Your task to perform on an android device: Toggle the flashlight Image 0: 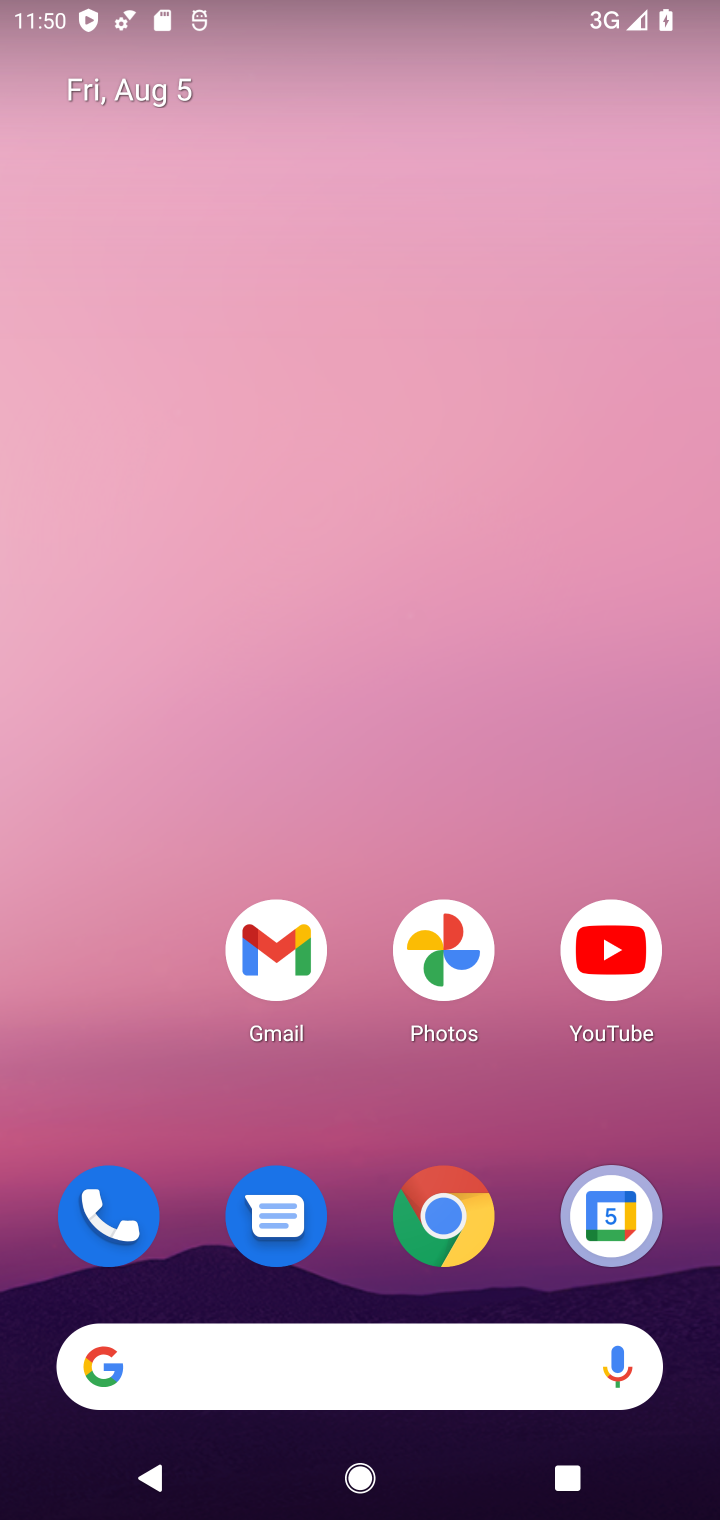
Step 0: drag from (425, 1344) to (464, 643)
Your task to perform on an android device: Toggle the flashlight Image 1: 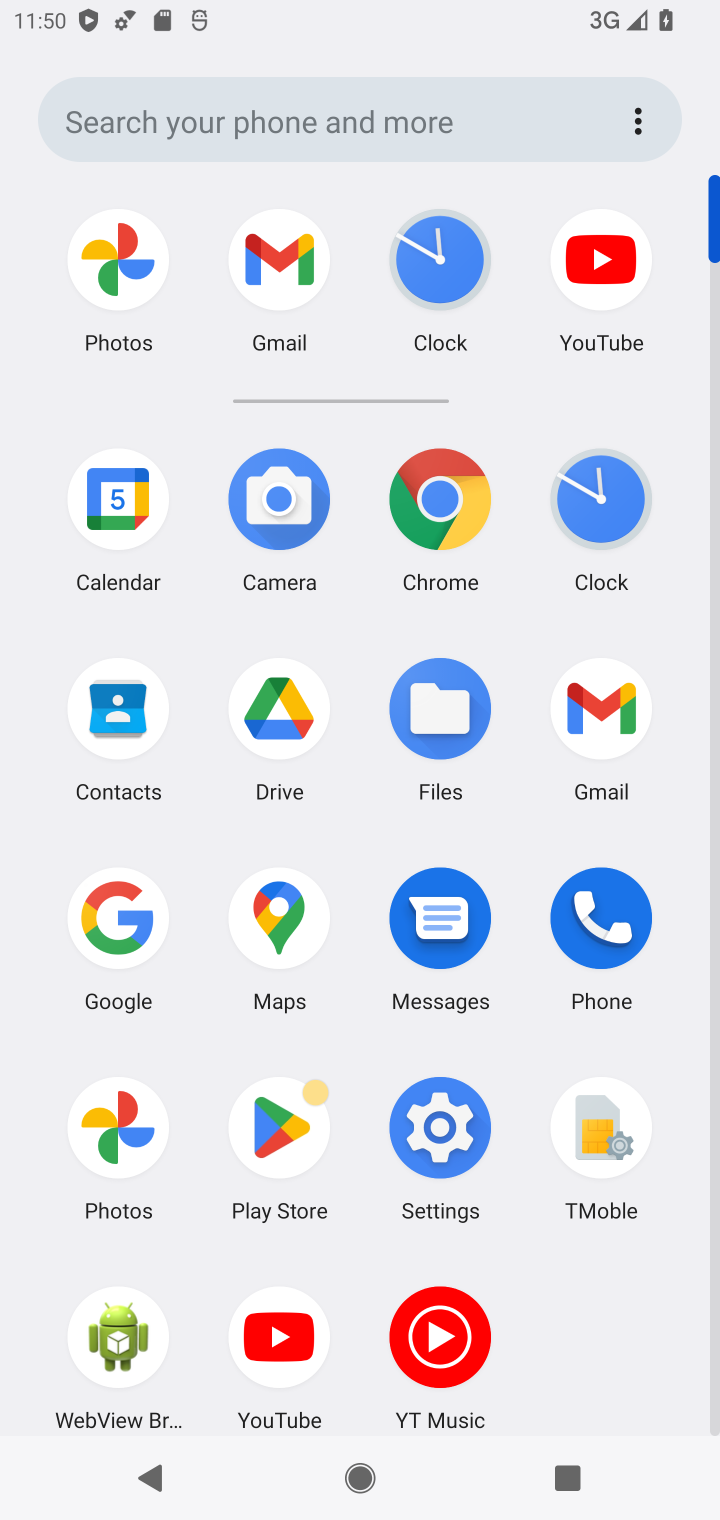
Step 1: drag from (436, 1) to (362, 1055)
Your task to perform on an android device: Toggle the flashlight Image 2: 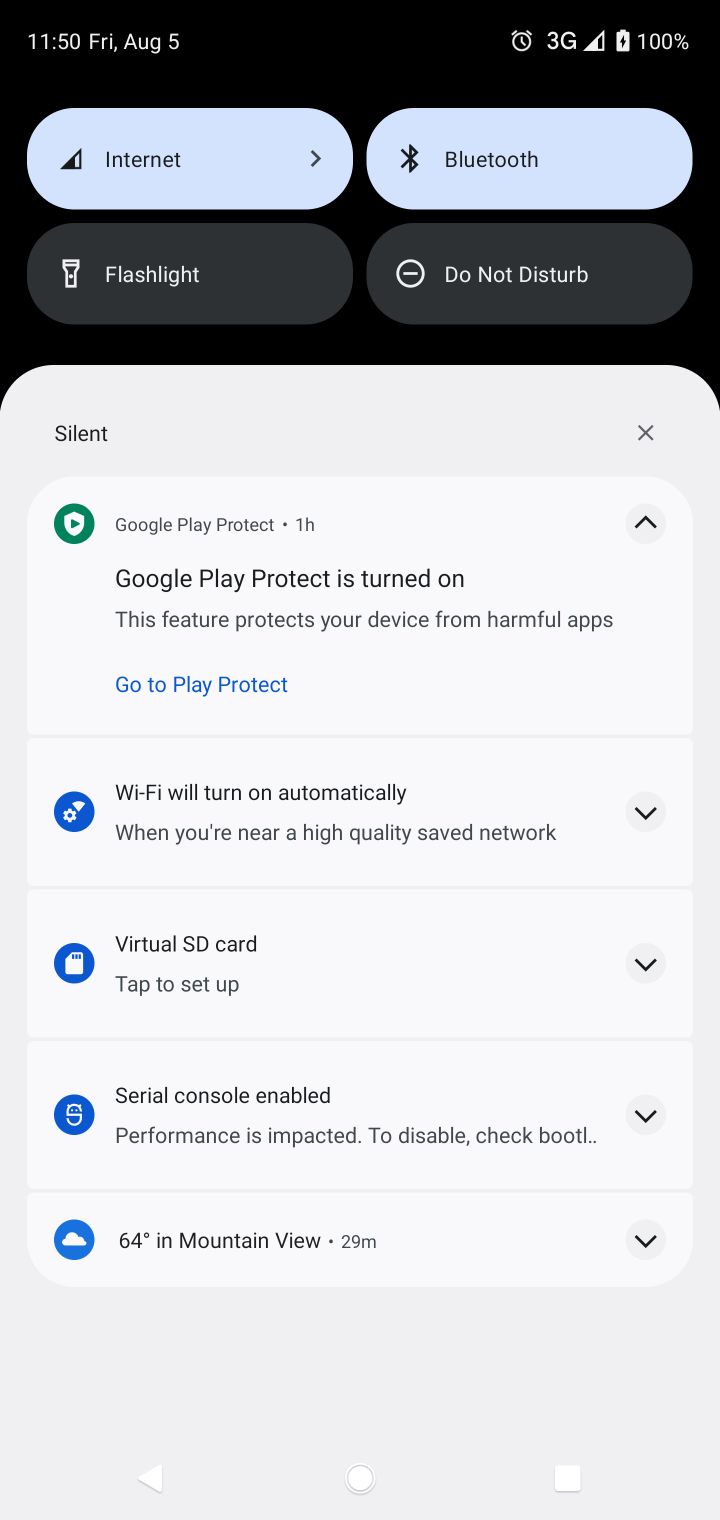
Step 2: click (194, 255)
Your task to perform on an android device: Toggle the flashlight Image 3: 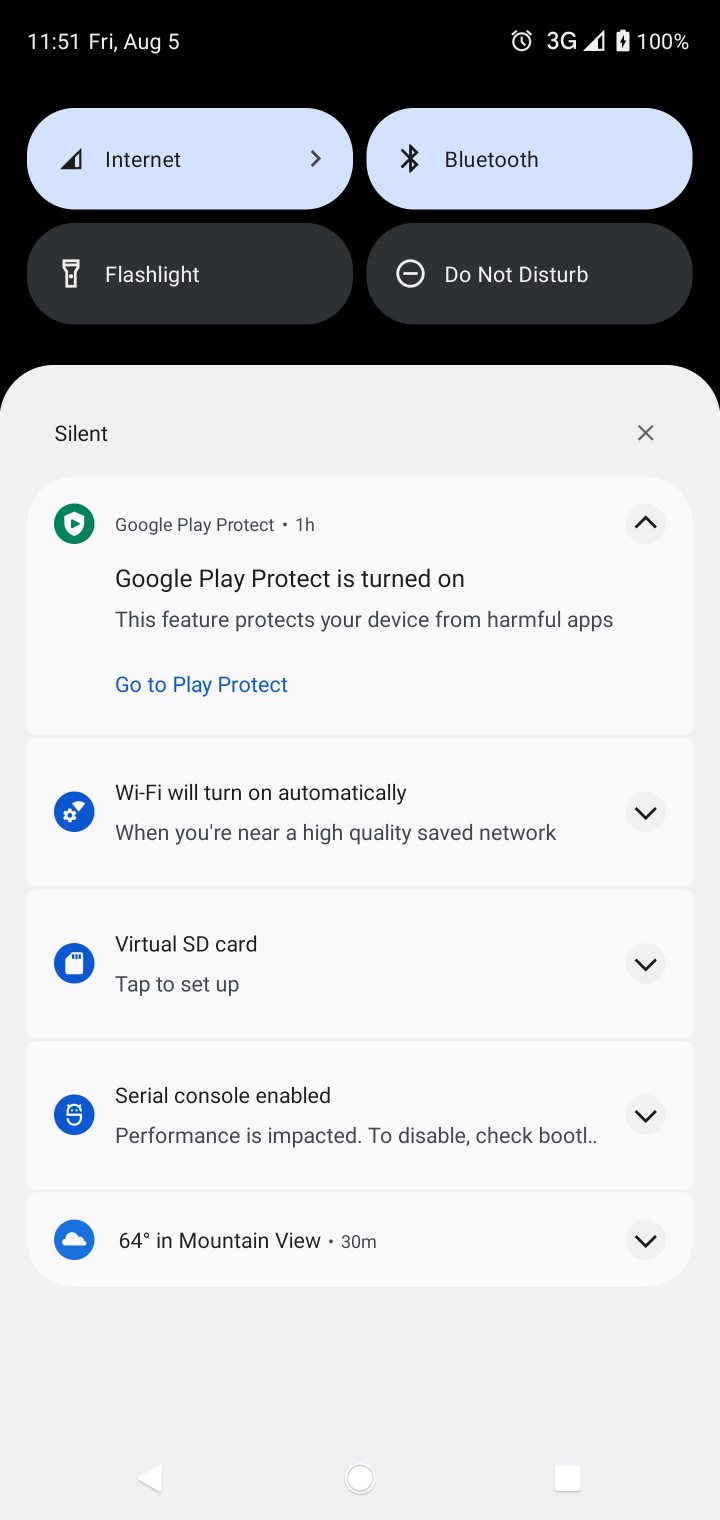
Step 3: task complete